Your task to perform on an android device: turn on wifi Image 0: 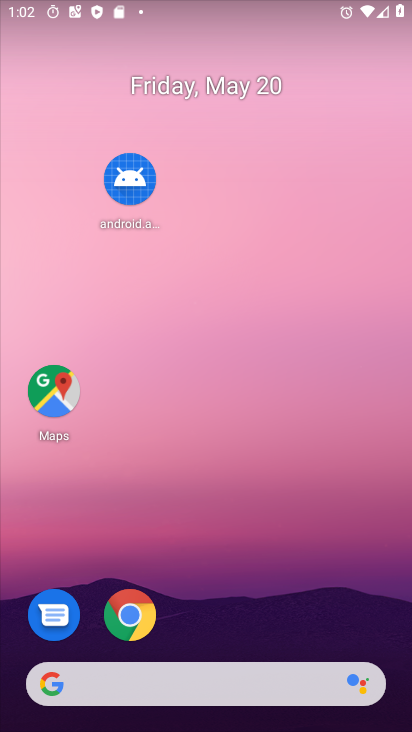
Step 0: drag from (260, 8) to (214, 312)
Your task to perform on an android device: turn on wifi Image 1: 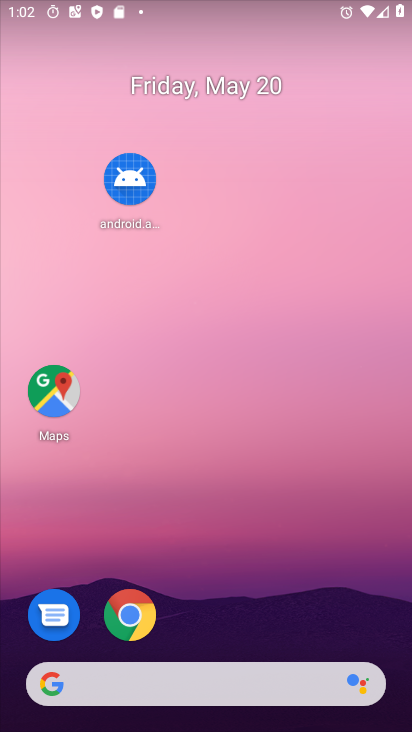
Step 1: task complete